Your task to perform on an android device: Search for Italian restaurants on Maps Image 0: 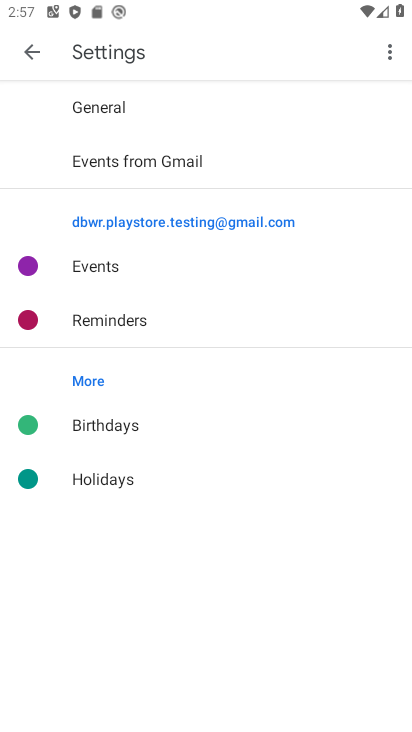
Step 0: press home button
Your task to perform on an android device: Search for Italian restaurants on Maps Image 1: 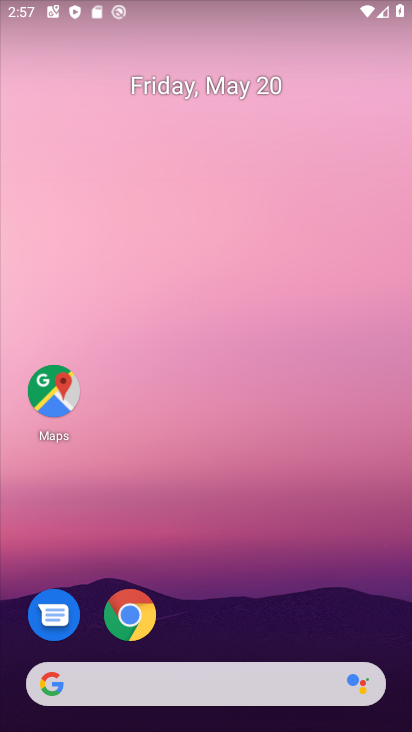
Step 1: drag from (228, 578) to (153, 137)
Your task to perform on an android device: Search for Italian restaurants on Maps Image 2: 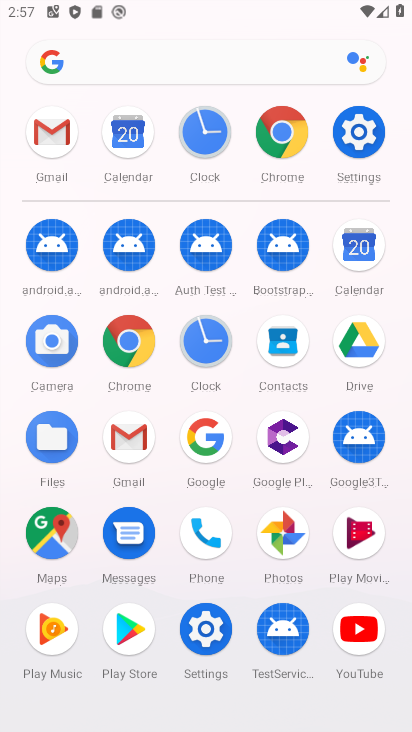
Step 2: click (47, 618)
Your task to perform on an android device: Search for Italian restaurants on Maps Image 3: 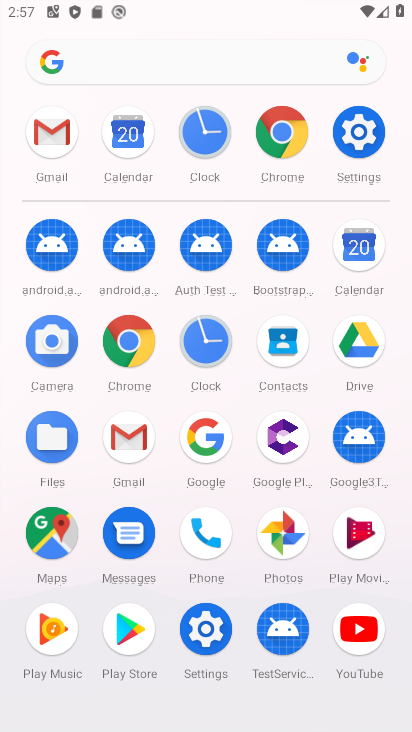
Step 3: click (42, 639)
Your task to perform on an android device: Search for Italian restaurants on Maps Image 4: 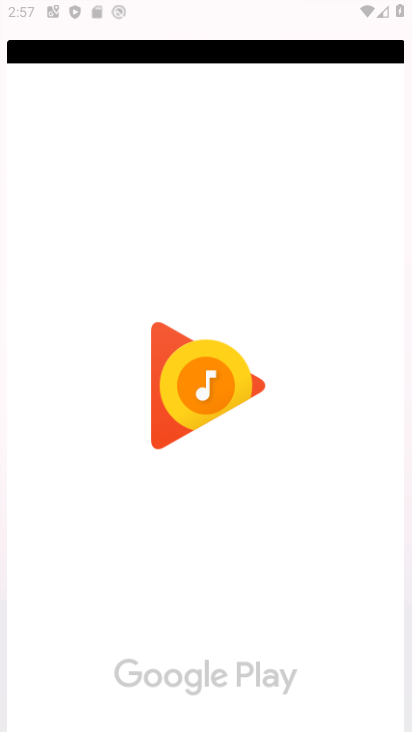
Step 4: click (51, 556)
Your task to perform on an android device: Search for Italian restaurants on Maps Image 5: 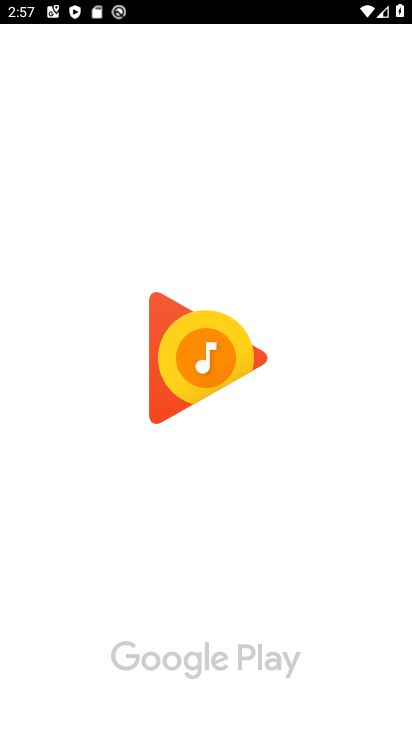
Step 5: press back button
Your task to perform on an android device: Search for Italian restaurants on Maps Image 6: 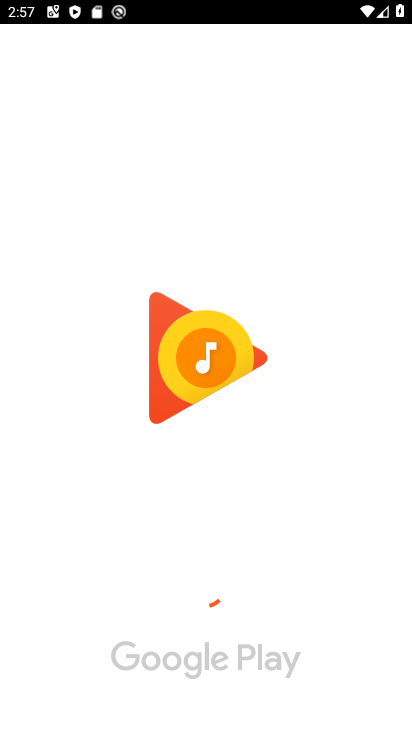
Step 6: press home button
Your task to perform on an android device: Search for Italian restaurants on Maps Image 7: 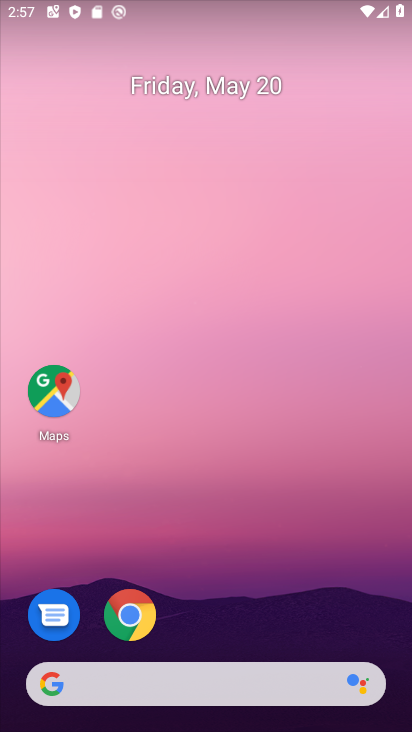
Step 7: drag from (208, 588) to (189, 321)
Your task to perform on an android device: Search for Italian restaurants on Maps Image 8: 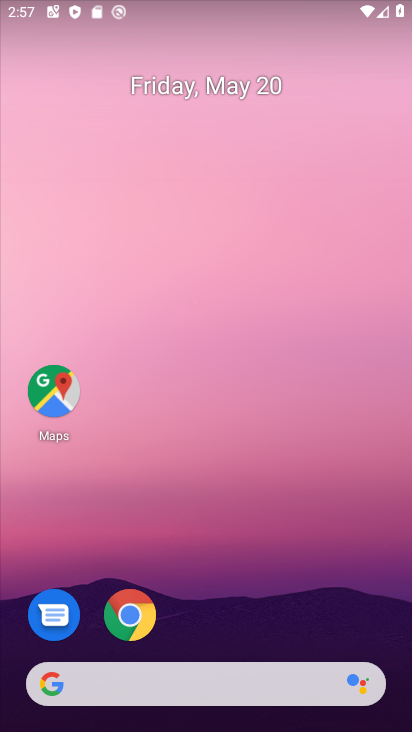
Step 8: click (50, 393)
Your task to perform on an android device: Search for Italian restaurants on Maps Image 9: 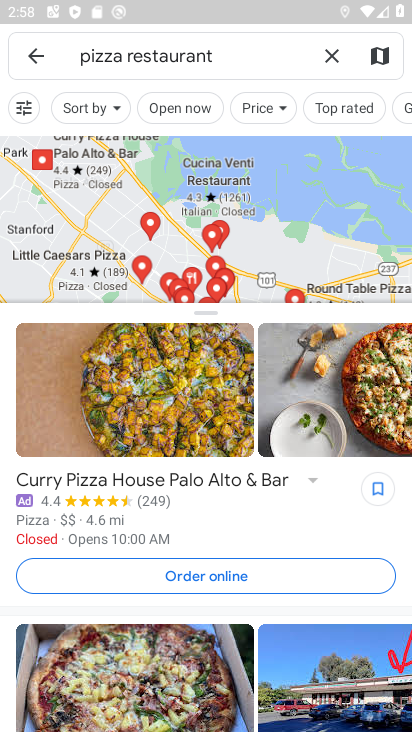
Step 9: click (332, 53)
Your task to perform on an android device: Search for Italian restaurants on Maps Image 10: 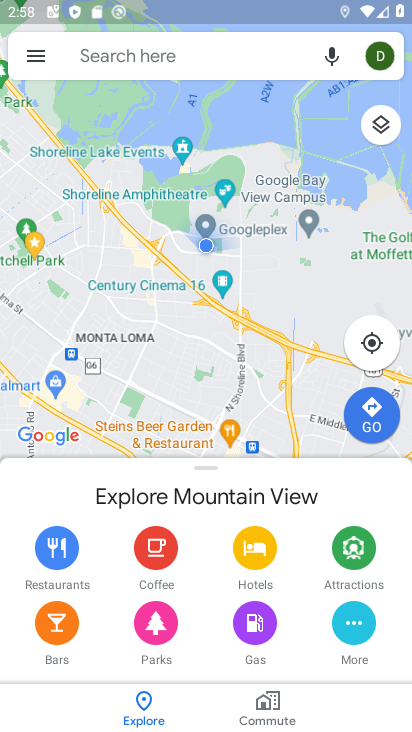
Step 10: click (253, 58)
Your task to perform on an android device: Search for Italian restaurants on Maps Image 11: 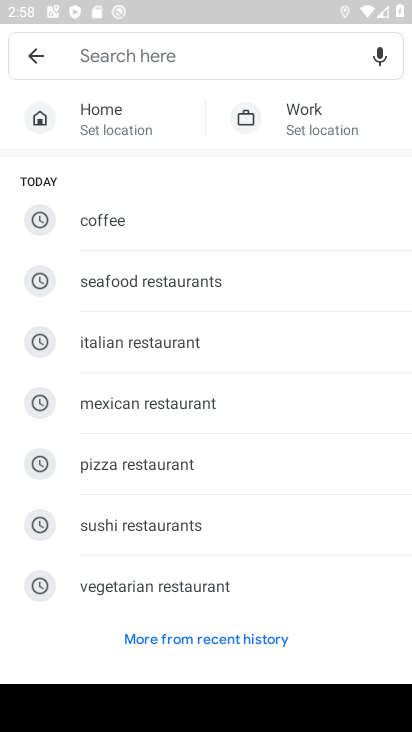
Step 11: click (148, 339)
Your task to perform on an android device: Search for Italian restaurants on Maps Image 12: 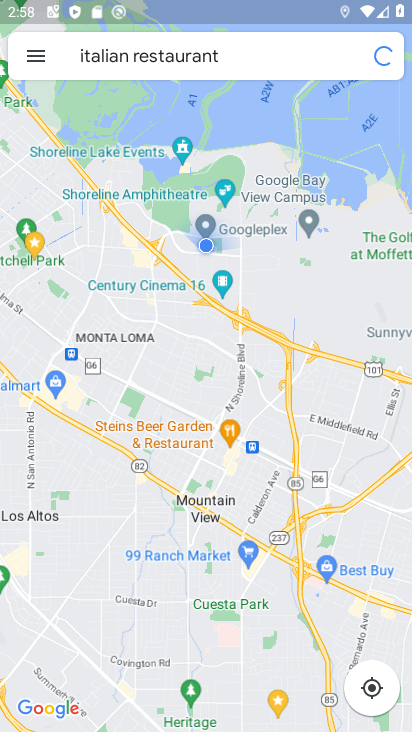
Step 12: task complete